Your task to perform on an android device: Open Google Chrome and open the bookmarks view Image 0: 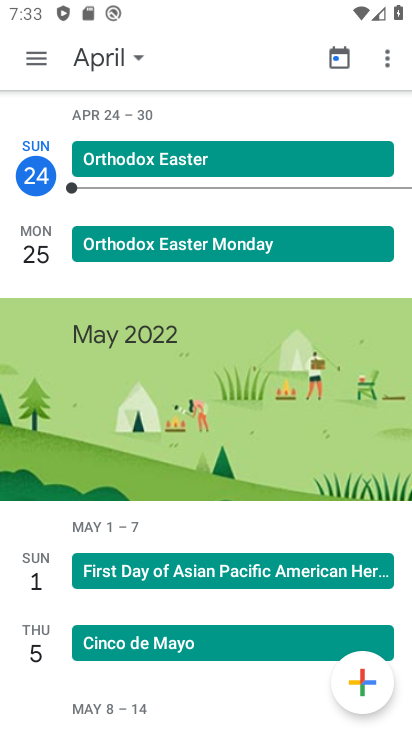
Step 0: press home button
Your task to perform on an android device: Open Google Chrome and open the bookmarks view Image 1: 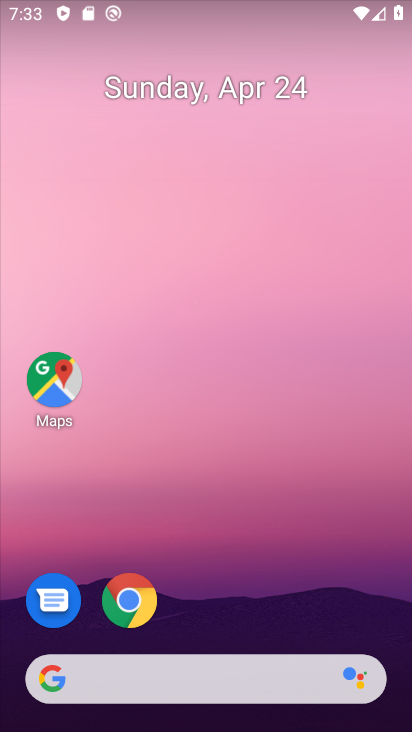
Step 1: drag from (321, 591) to (384, 46)
Your task to perform on an android device: Open Google Chrome and open the bookmarks view Image 2: 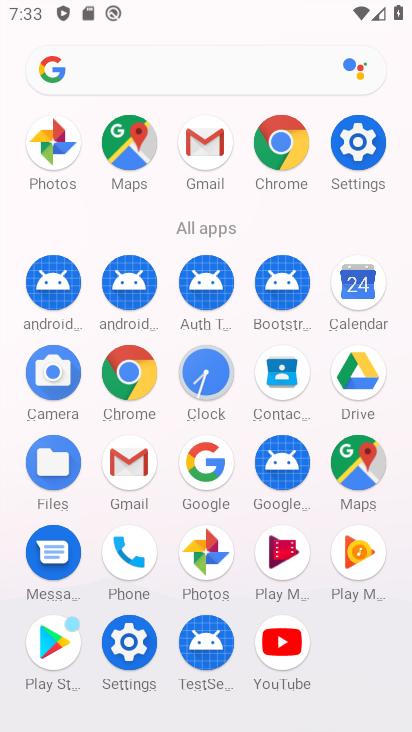
Step 2: click (301, 137)
Your task to perform on an android device: Open Google Chrome and open the bookmarks view Image 3: 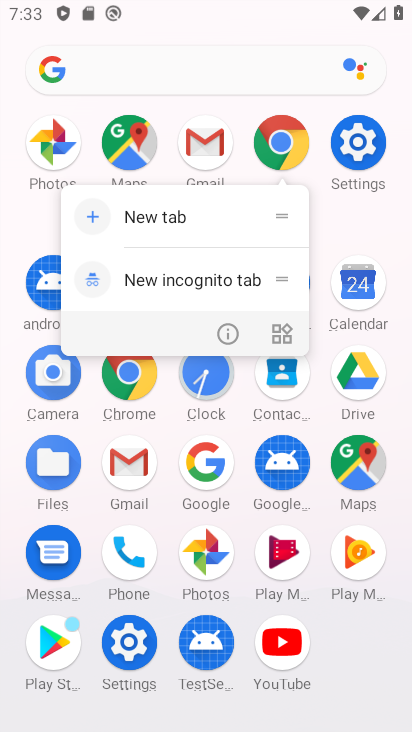
Step 3: click (280, 132)
Your task to perform on an android device: Open Google Chrome and open the bookmarks view Image 4: 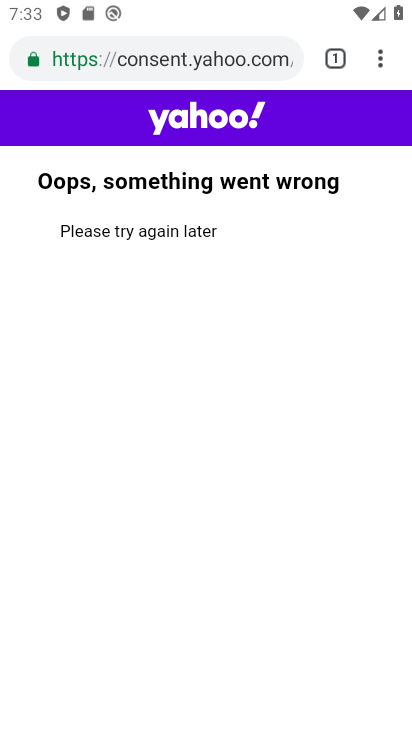
Step 4: click (379, 65)
Your task to perform on an android device: Open Google Chrome and open the bookmarks view Image 5: 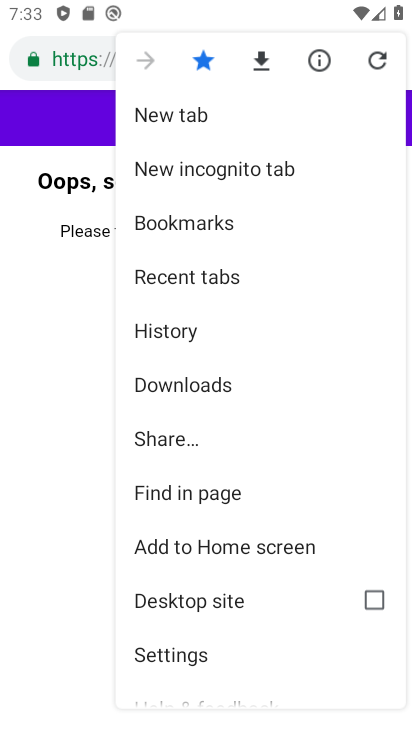
Step 5: click (250, 232)
Your task to perform on an android device: Open Google Chrome and open the bookmarks view Image 6: 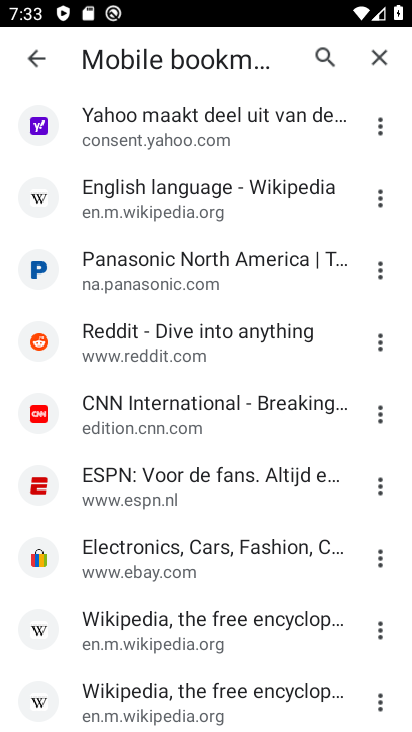
Step 6: task complete